Your task to perform on an android device: change alarm snooze length Image 0: 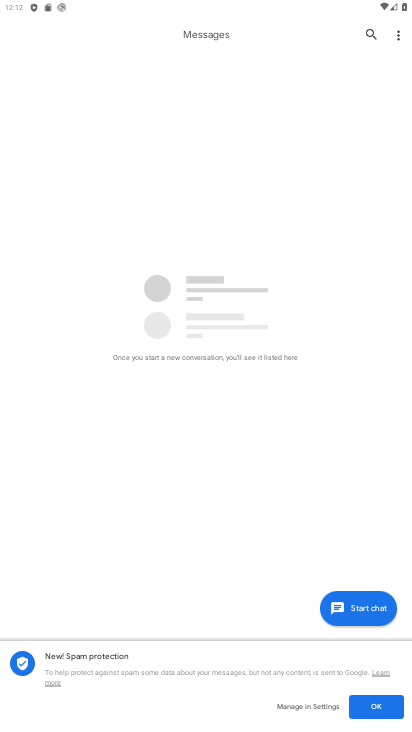
Step 0: press home button
Your task to perform on an android device: change alarm snooze length Image 1: 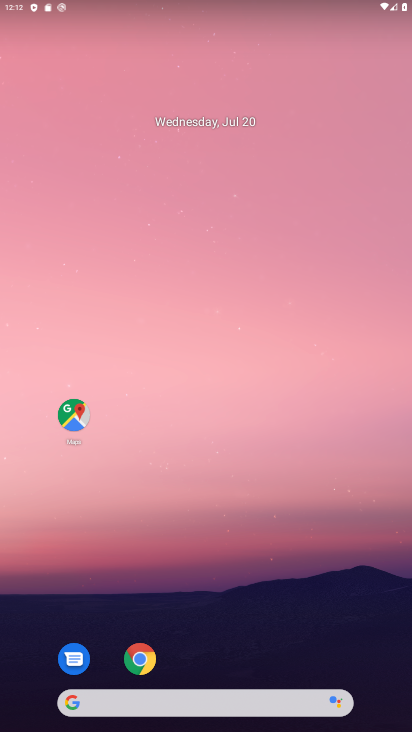
Step 1: drag from (354, 610) to (210, 21)
Your task to perform on an android device: change alarm snooze length Image 2: 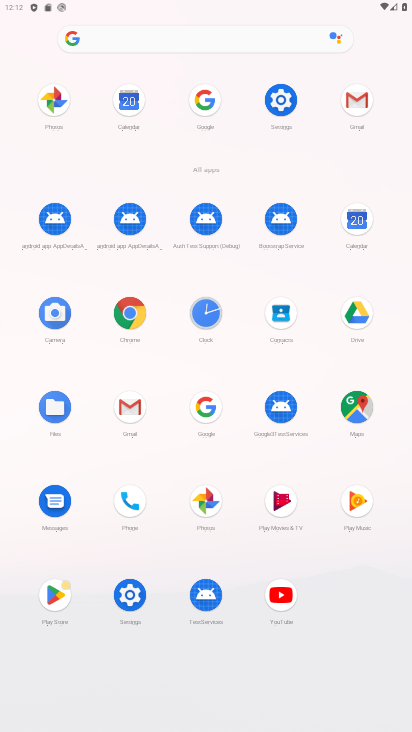
Step 2: click (214, 316)
Your task to perform on an android device: change alarm snooze length Image 3: 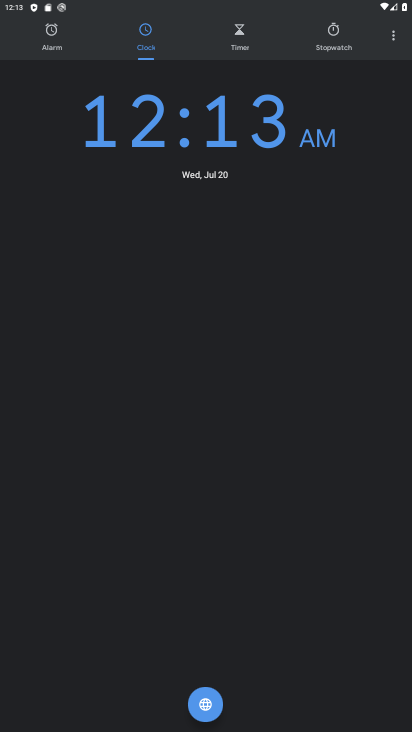
Step 3: click (388, 34)
Your task to perform on an android device: change alarm snooze length Image 4: 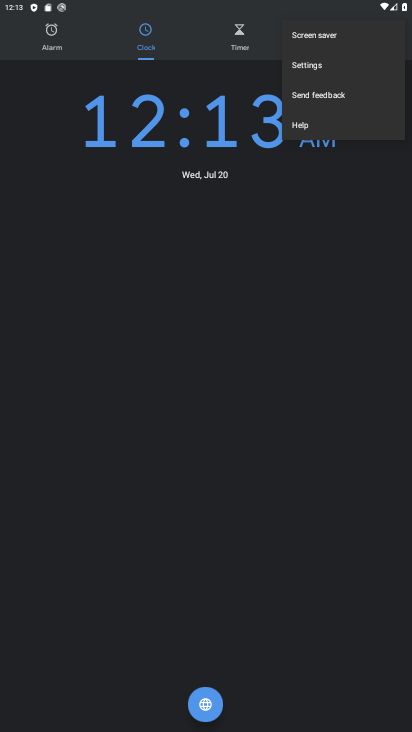
Step 4: click (303, 74)
Your task to perform on an android device: change alarm snooze length Image 5: 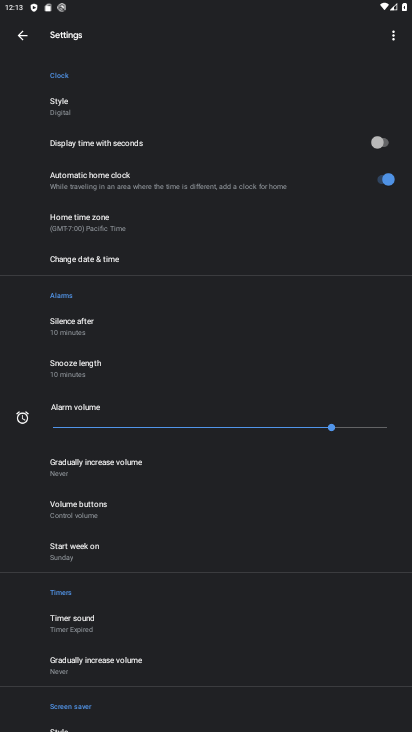
Step 5: click (93, 377)
Your task to perform on an android device: change alarm snooze length Image 6: 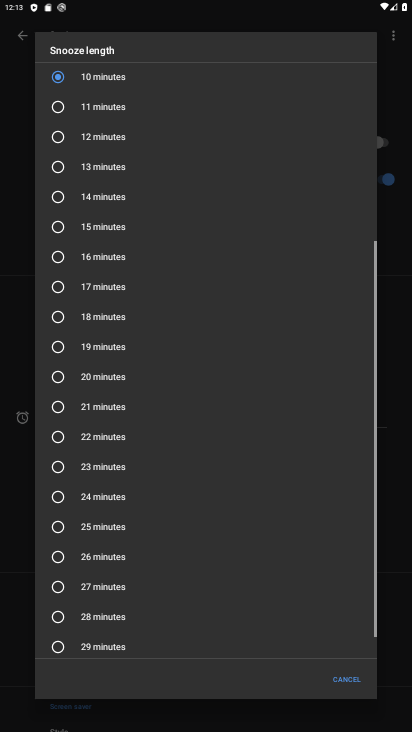
Step 6: click (96, 378)
Your task to perform on an android device: change alarm snooze length Image 7: 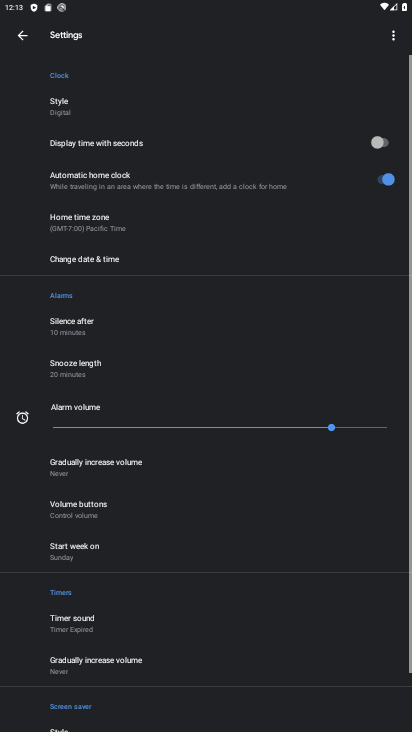
Step 7: task complete